Your task to perform on an android device: check android version Image 0: 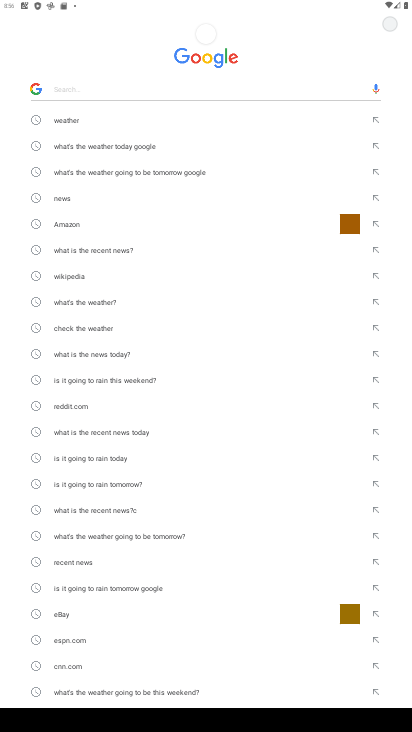
Step 0: press home button
Your task to perform on an android device: check android version Image 1: 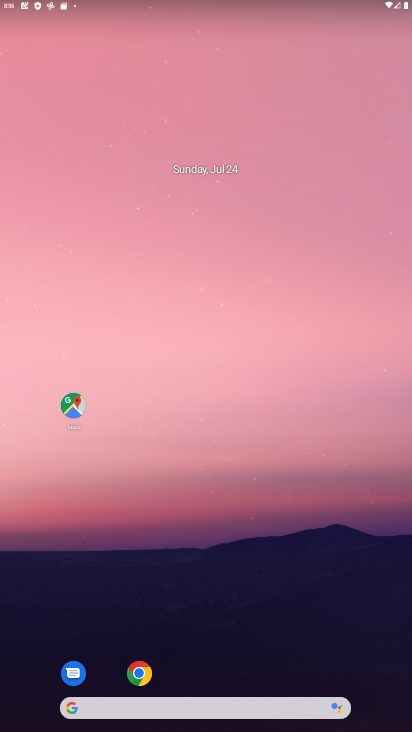
Step 1: drag from (197, 657) to (175, 299)
Your task to perform on an android device: check android version Image 2: 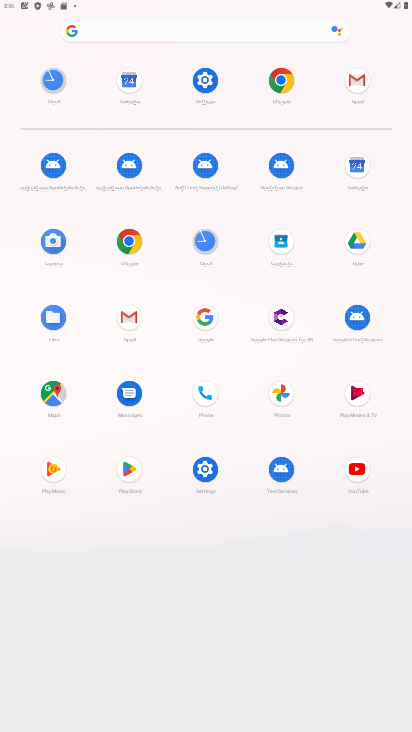
Step 2: click (194, 85)
Your task to perform on an android device: check android version Image 3: 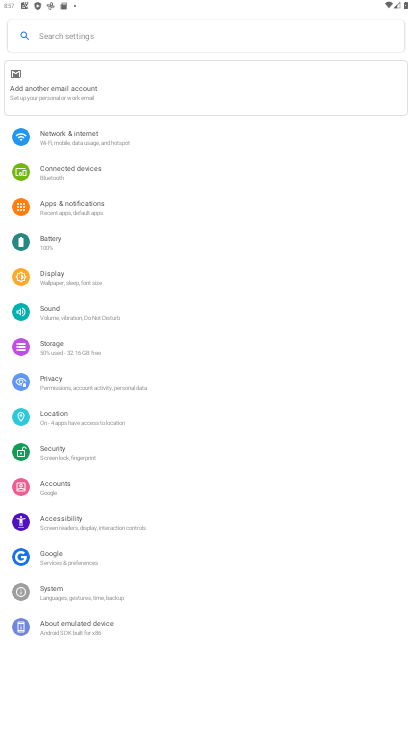
Step 3: drag from (202, 108) to (159, 92)
Your task to perform on an android device: check android version Image 4: 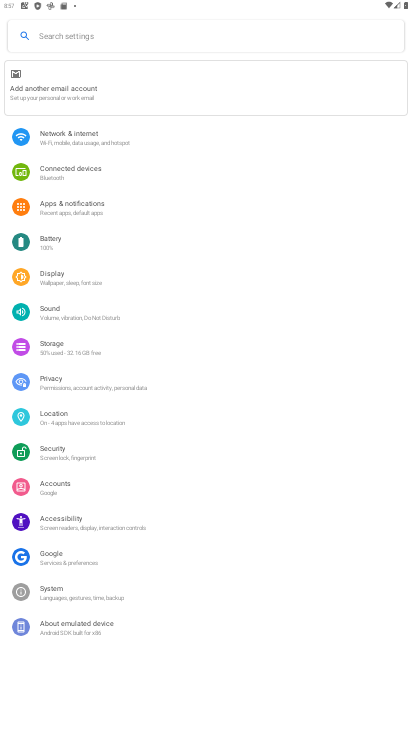
Step 4: click (64, 627)
Your task to perform on an android device: check android version Image 5: 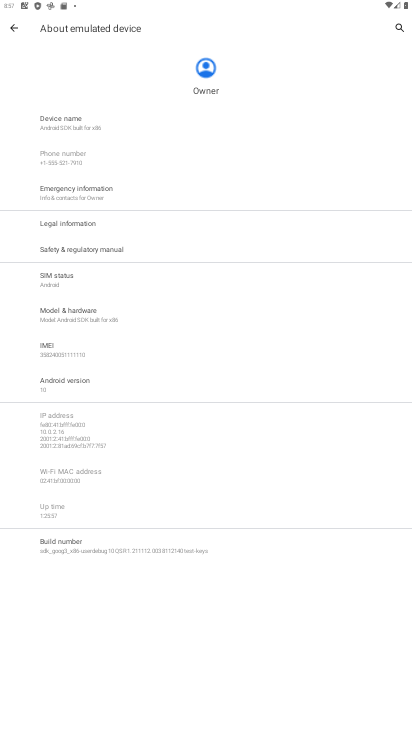
Step 5: task complete